Your task to perform on an android device: turn off location Image 0: 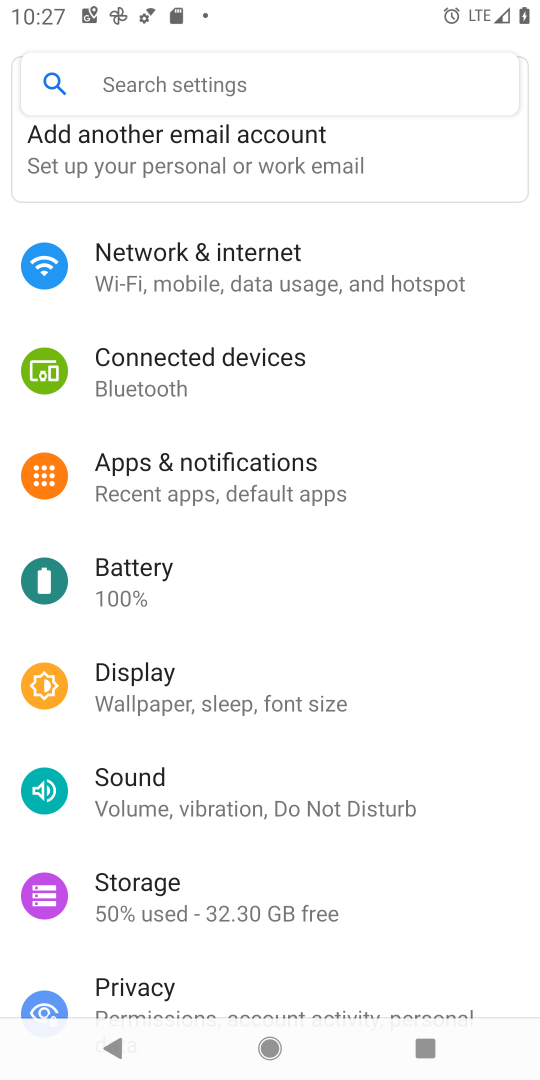
Step 0: press home button
Your task to perform on an android device: turn off location Image 1: 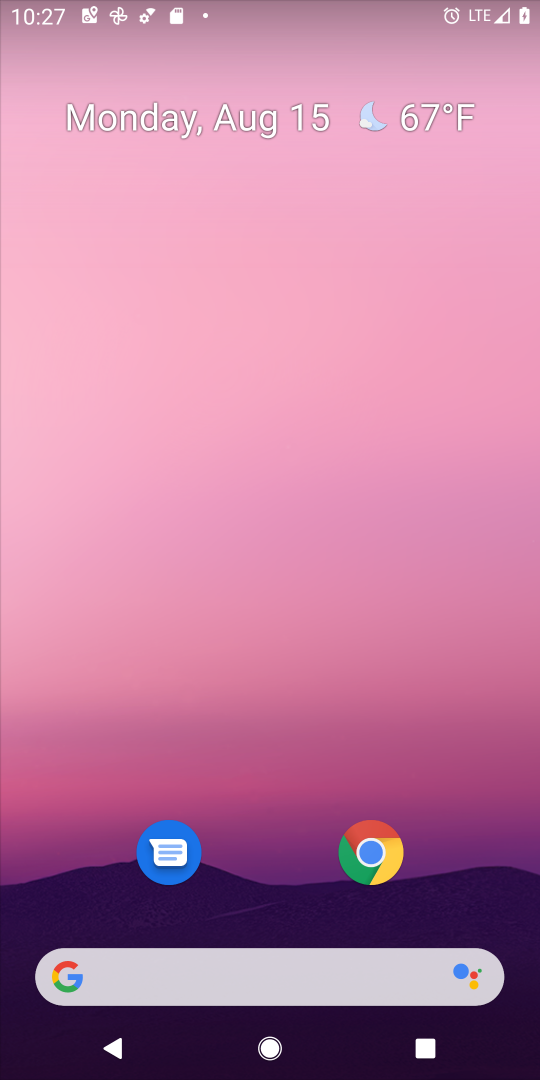
Step 1: drag from (247, 976) to (349, 12)
Your task to perform on an android device: turn off location Image 2: 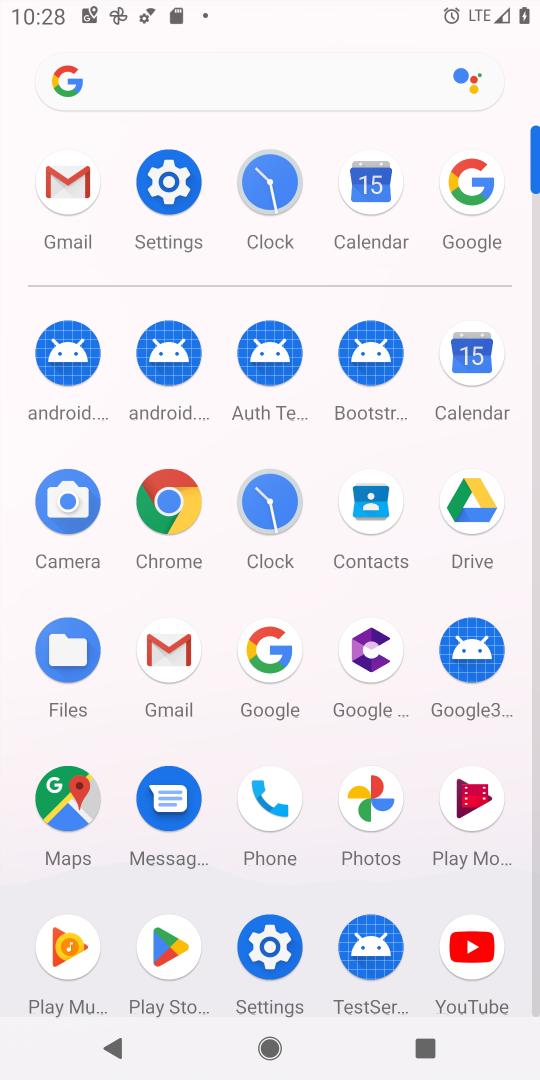
Step 2: click (268, 947)
Your task to perform on an android device: turn off location Image 3: 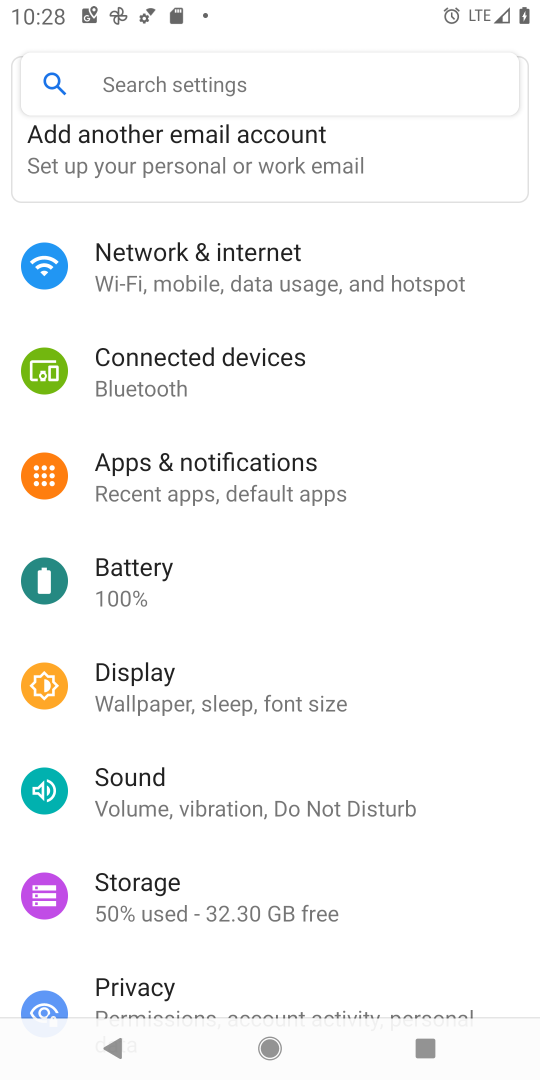
Step 3: drag from (216, 771) to (255, 517)
Your task to perform on an android device: turn off location Image 4: 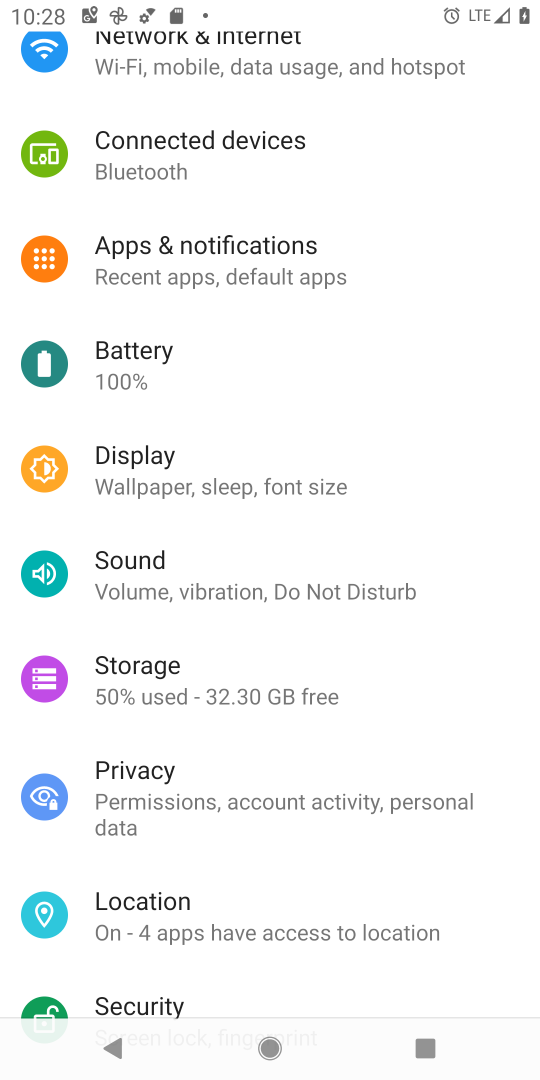
Step 4: click (151, 935)
Your task to perform on an android device: turn off location Image 5: 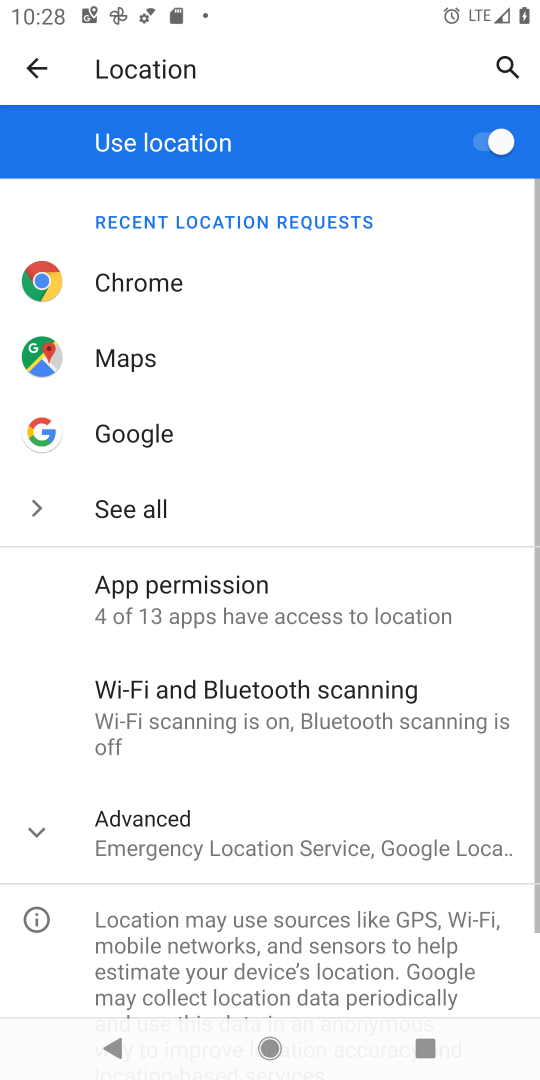
Step 5: click (491, 158)
Your task to perform on an android device: turn off location Image 6: 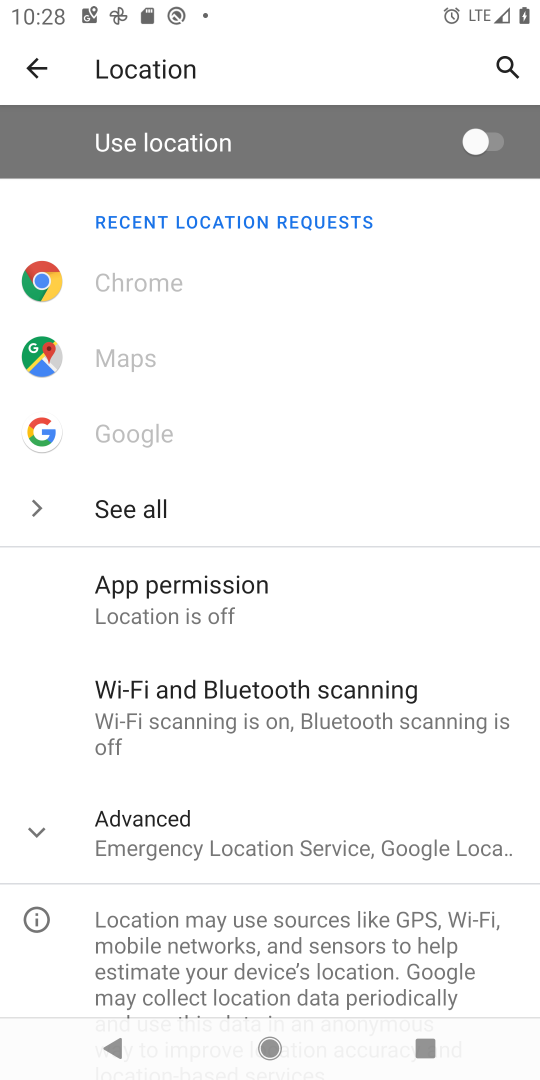
Step 6: task complete